Your task to perform on an android device: open app "Facebook" (install if not already installed) and go to login screen Image 0: 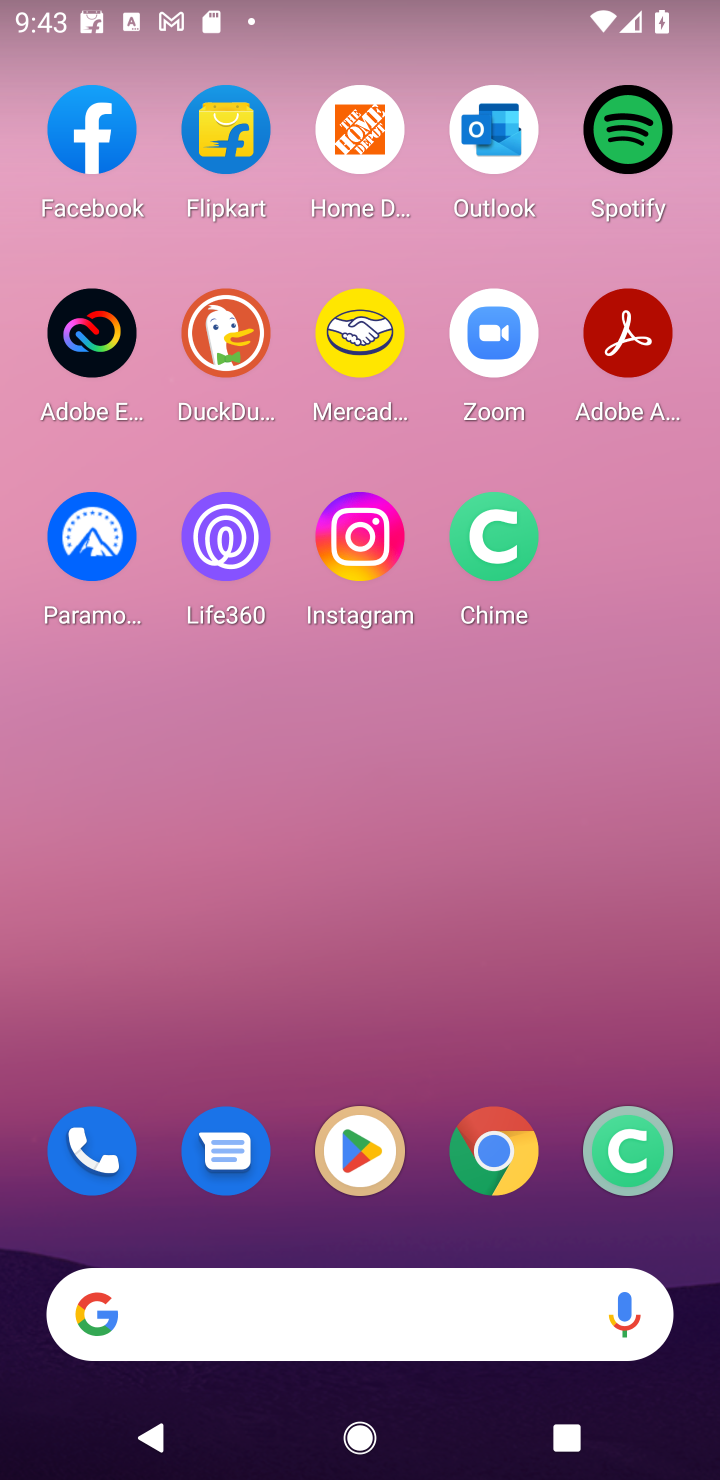
Step 0: press home button
Your task to perform on an android device: open app "Facebook" (install if not already installed) and go to login screen Image 1: 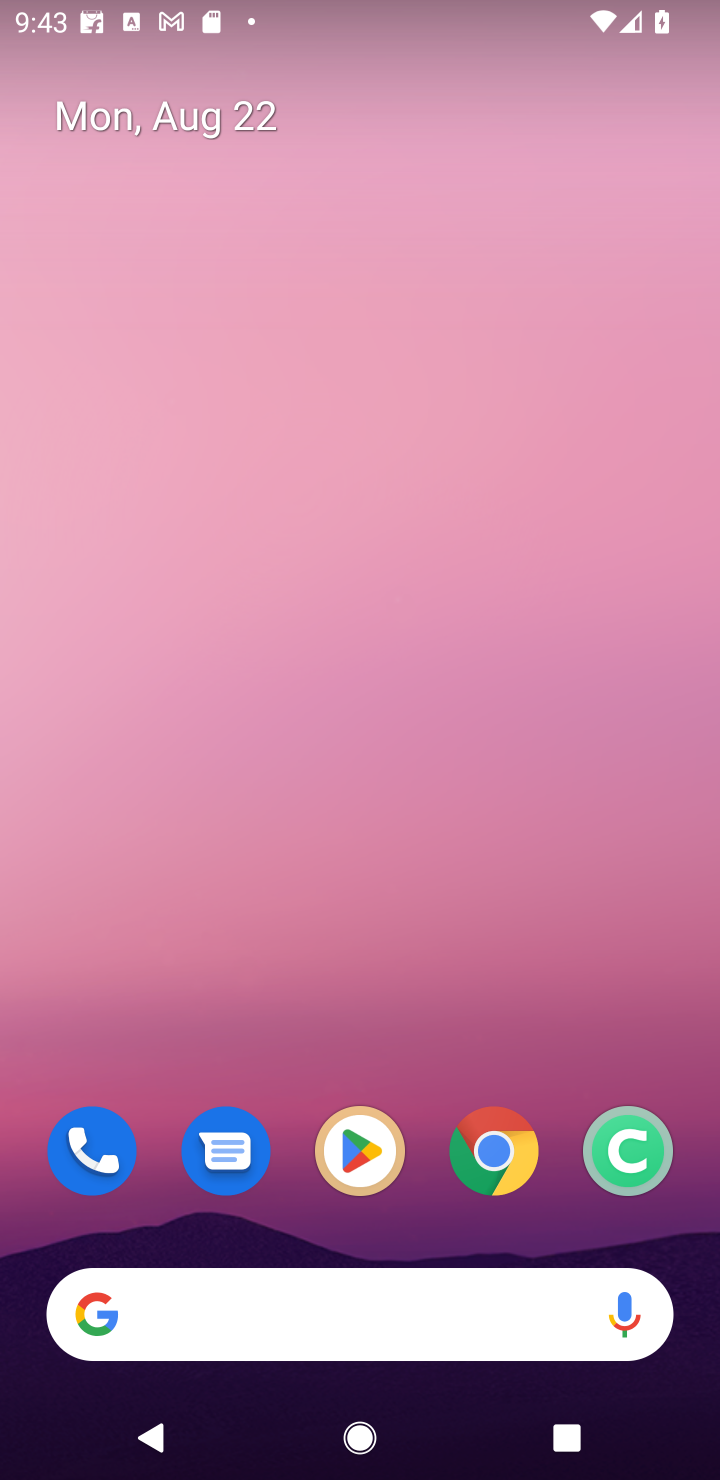
Step 1: click (367, 1146)
Your task to perform on an android device: open app "Facebook" (install if not already installed) and go to login screen Image 2: 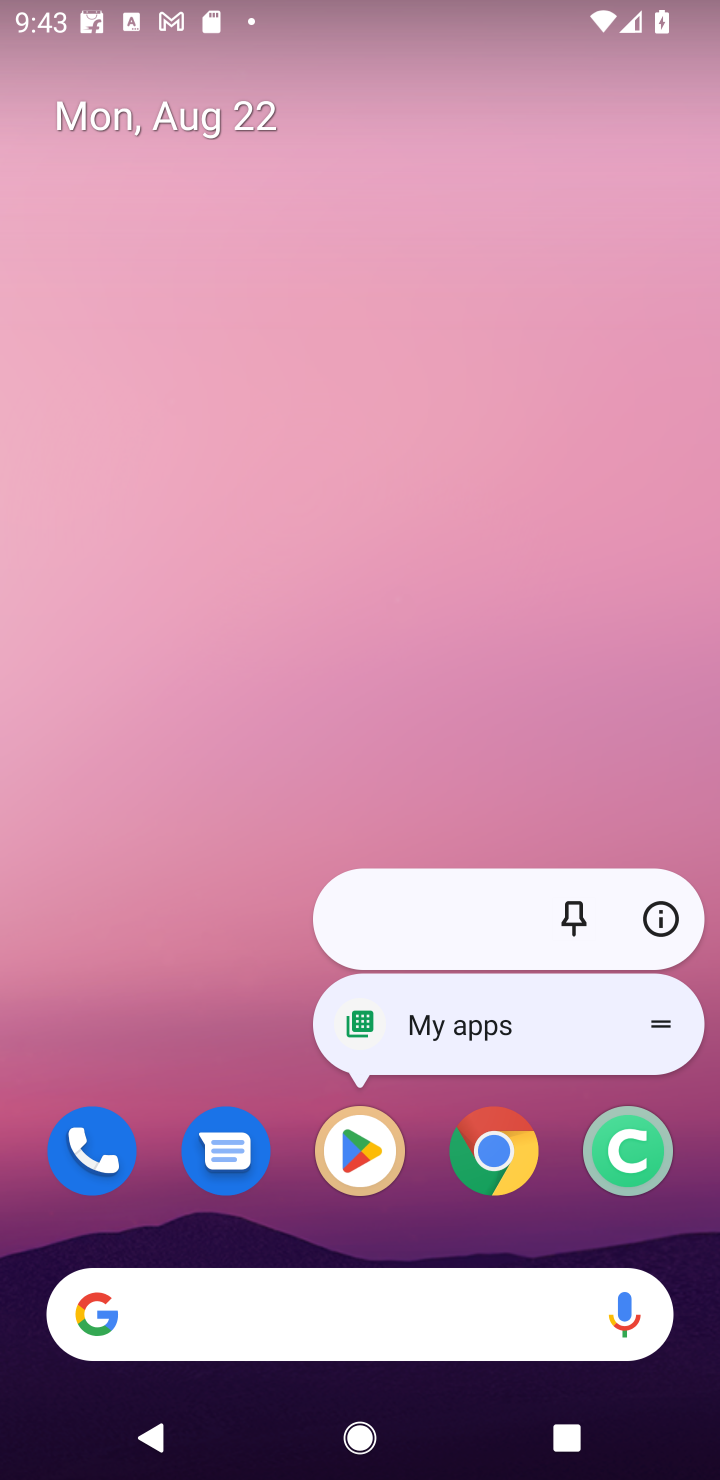
Step 2: click (345, 1130)
Your task to perform on an android device: open app "Facebook" (install if not already installed) and go to login screen Image 3: 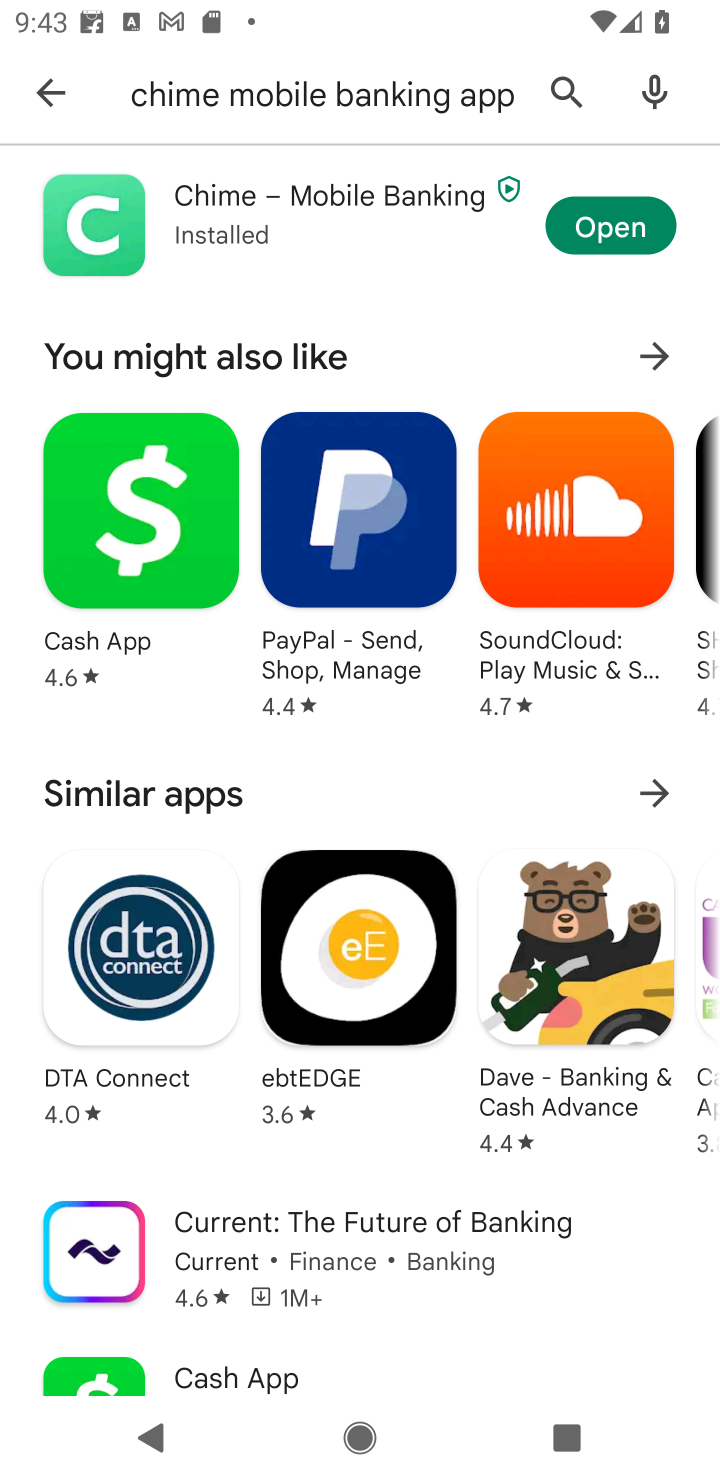
Step 3: click (556, 83)
Your task to perform on an android device: open app "Facebook" (install if not already installed) and go to login screen Image 4: 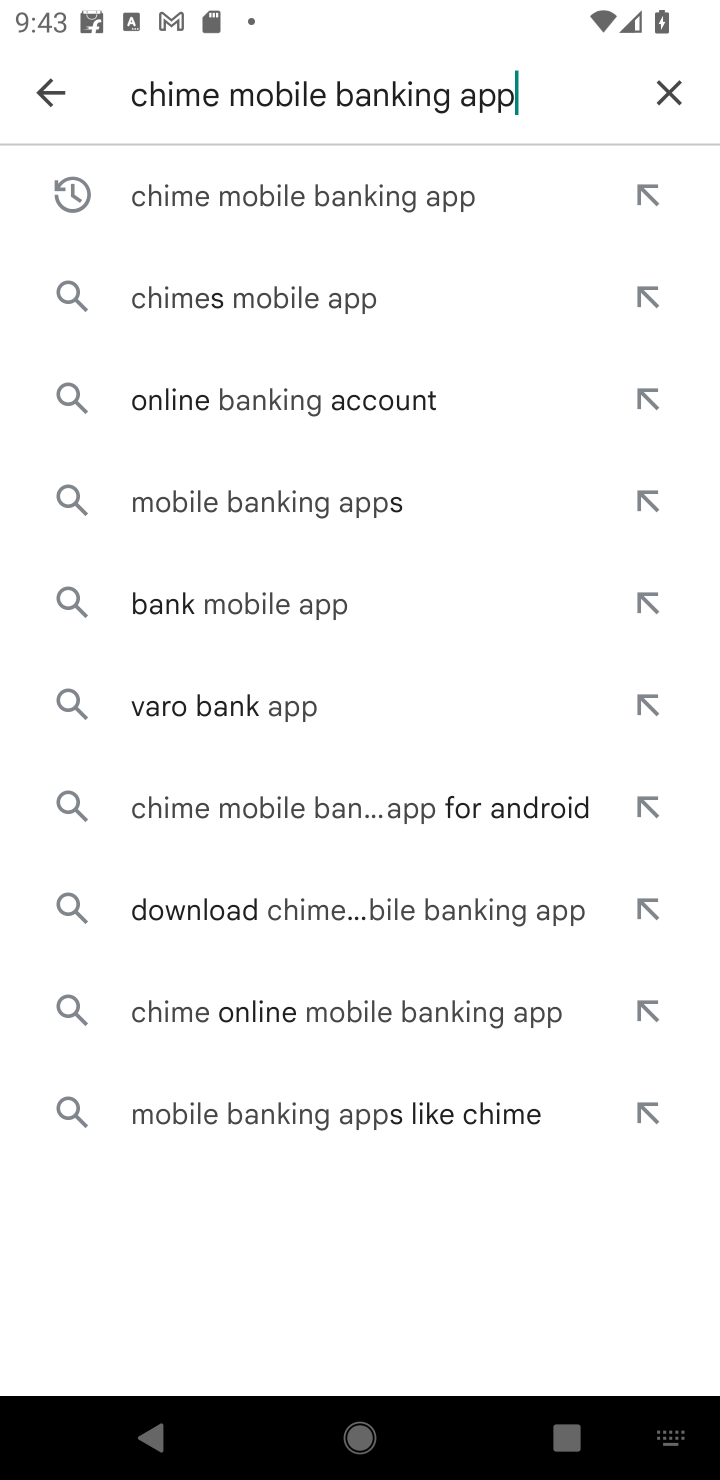
Step 4: click (657, 87)
Your task to perform on an android device: open app "Facebook" (install if not already installed) and go to login screen Image 5: 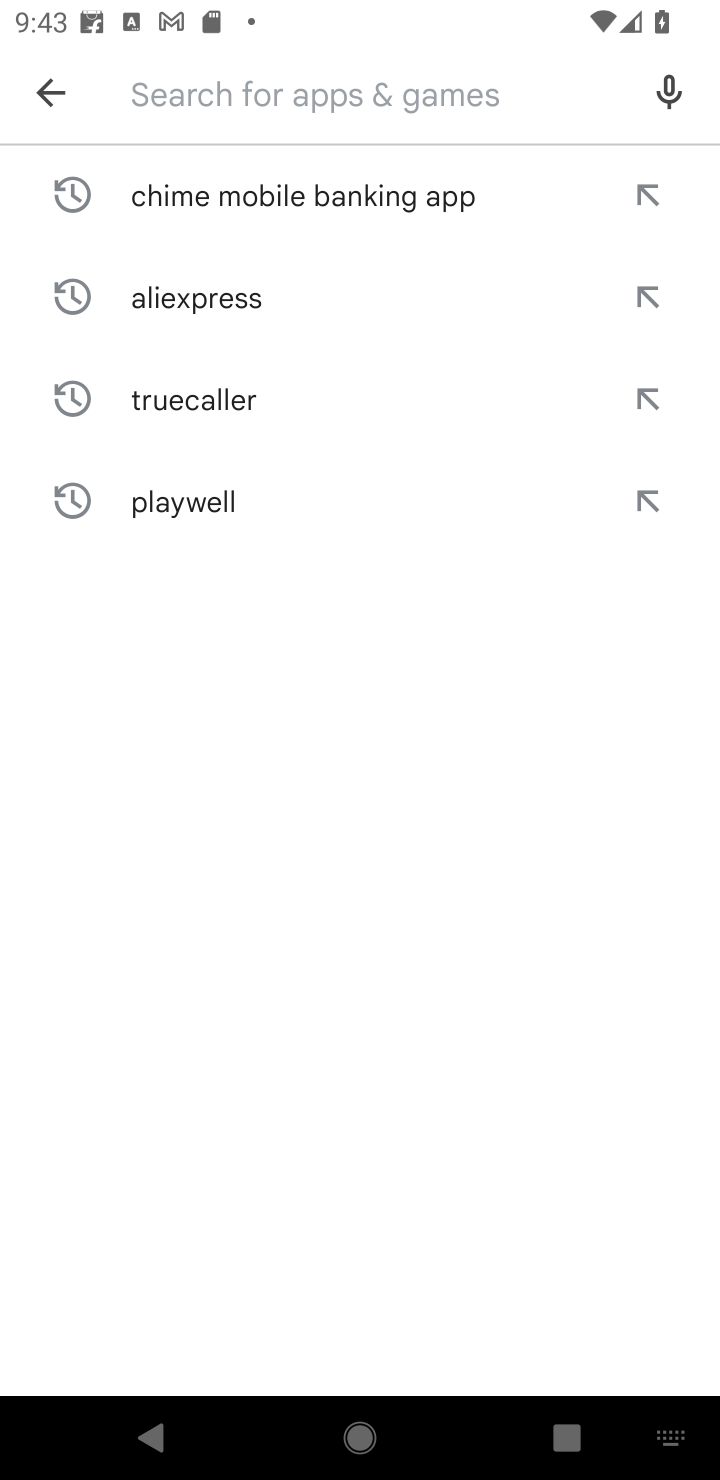
Step 5: type "Facebook"
Your task to perform on an android device: open app "Facebook" (install if not already installed) and go to login screen Image 6: 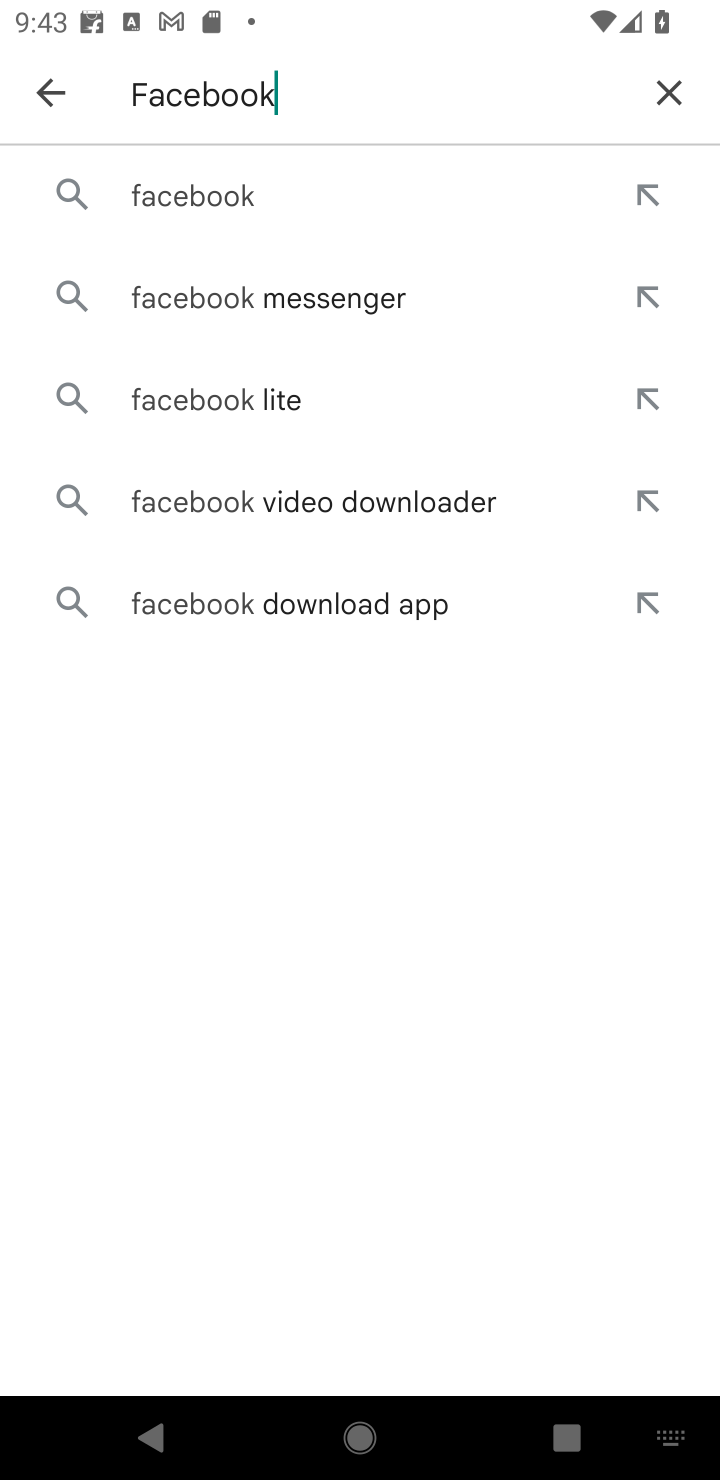
Step 6: click (211, 195)
Your task to perform on an android device: open app "Facebook" (install if not already installed) and go to login screen Image 7: 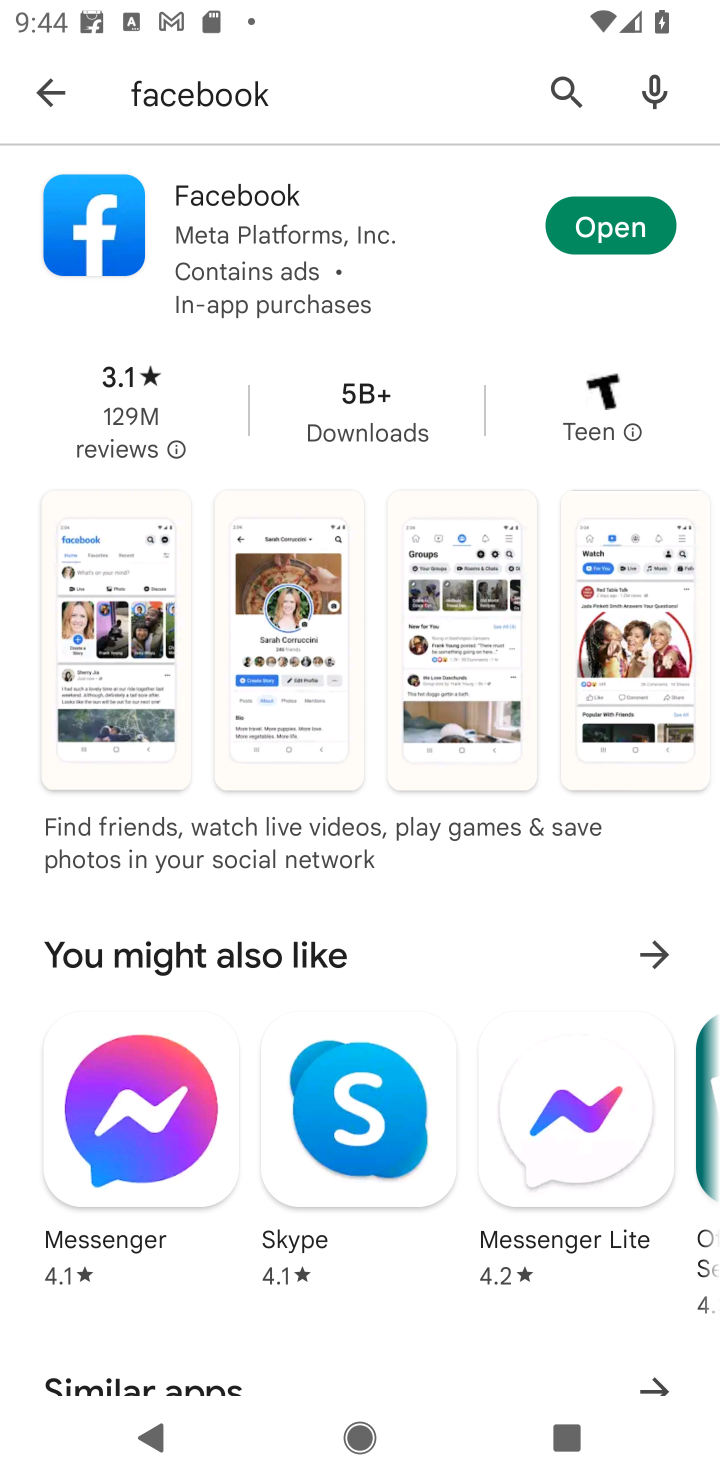
Step 7: click (637, 235)
Your task to perform on an android device: open app "Facebook" (install if not already installed) and go to login screen Image 8: 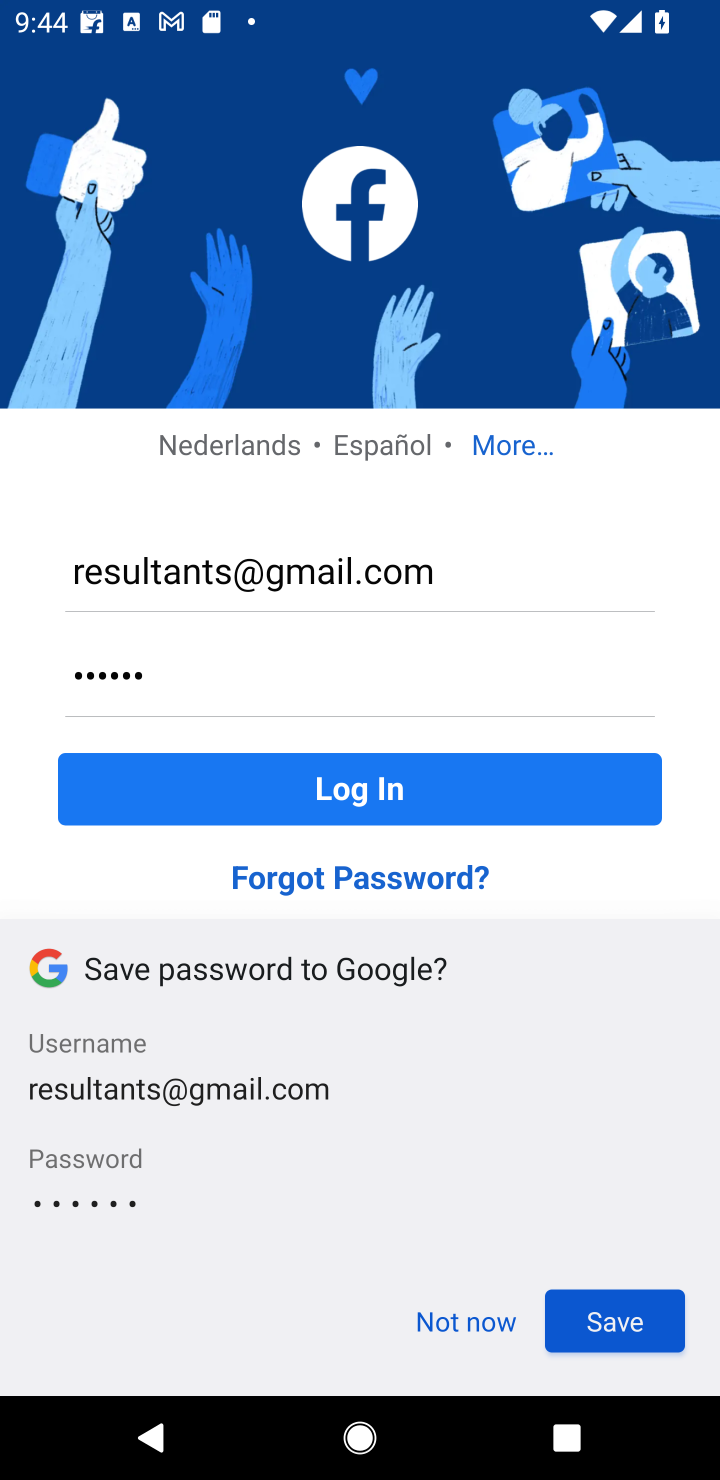
Step 8: task complete